Your task to perform on an android device: turn on the 24-hour format for clock Image 0: 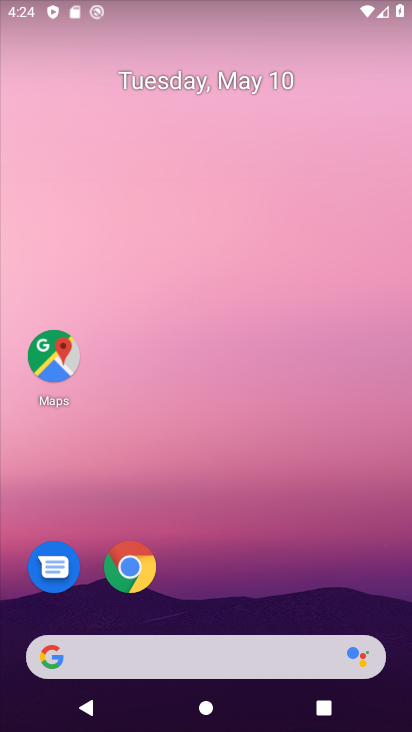
Step 0: drag from (237, 605) to (341, 40)
Your task to perform on an android device: turn on the 24-hour format for clock Image 1: 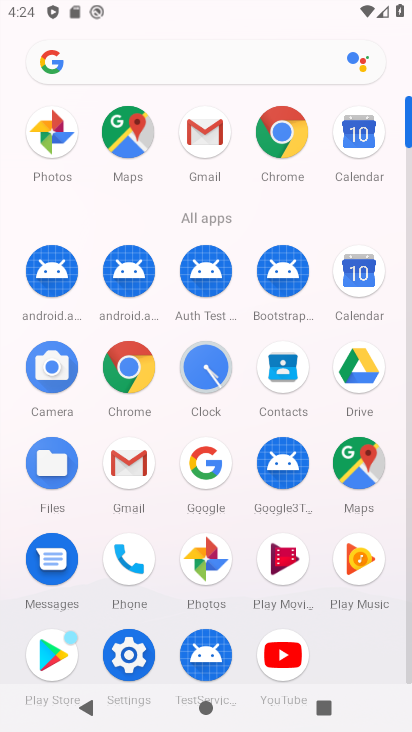
Step 1: click (208, 366)
Your task to perform on an android device: turn on the 24-hour format for clock Image 2: 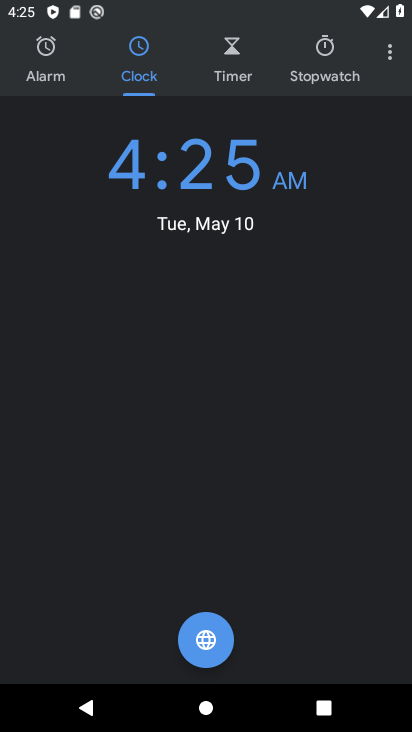
Step 2: click (390, 53)
Your task to perform on an android device: turn on the 24-hour format for clock Image 3: 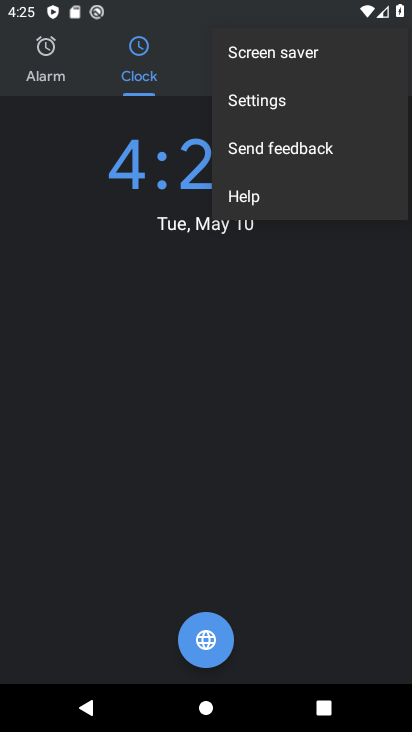
Step 3: click (355, 100)
Your task to perform on an android device: turn on the 24-hour format for clock Image 4: 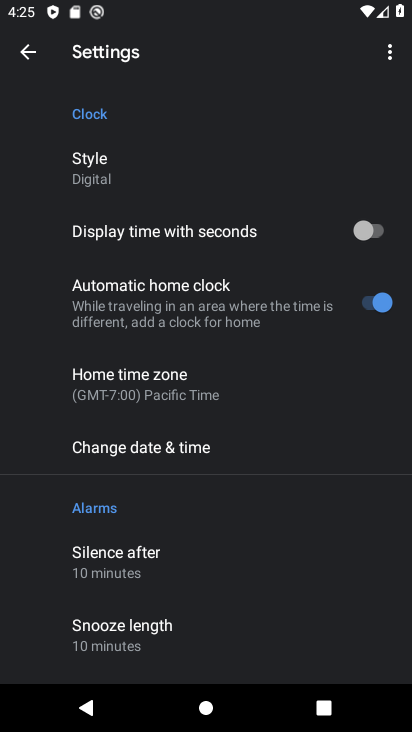
Step 4: click (198, 445)
Your task to perform on an android device: turn on the 24-hour format for clock Image 5: 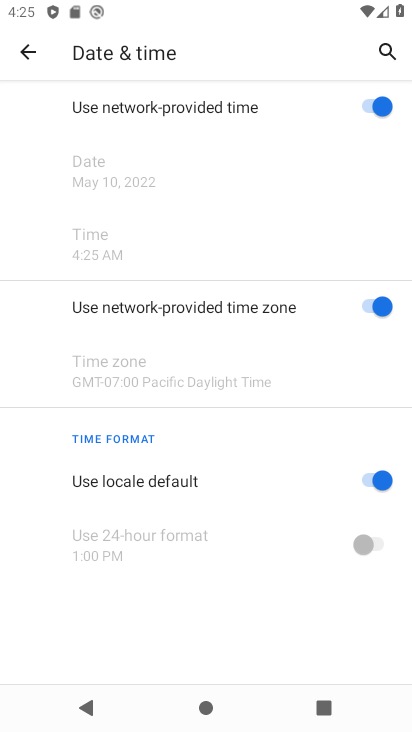
Step 5: click (373, 488)
Your task to perform on an android device: turn on the 24-hour format for clock Image 6: 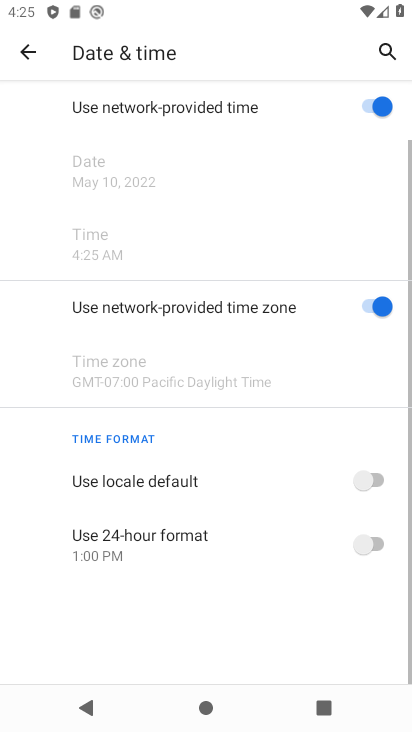
Step 6: click (361, 550)
Your task to perform on an android device: turn on the 24-hour format for clock Image 7: 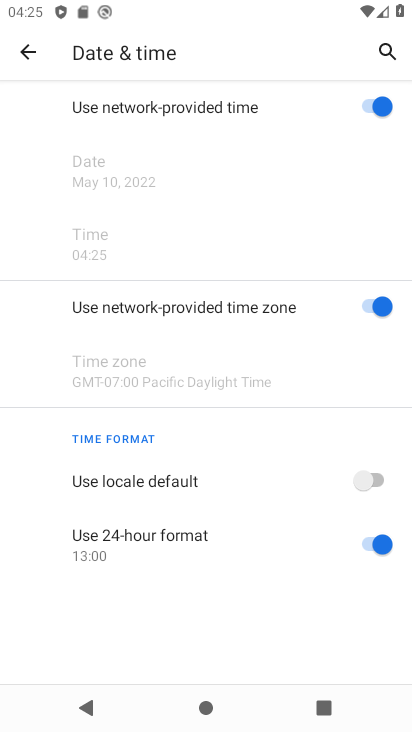
Step 7: task complete